Your task to perform on an android device: set default search engine in the chrome app Image 0: 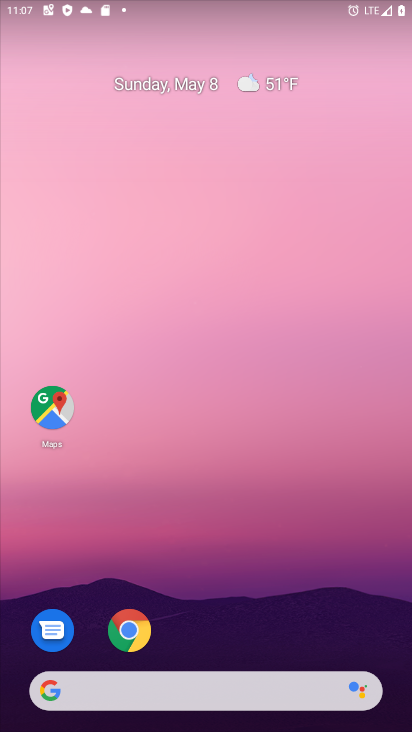
Step 0: drag from (382, 619) to (239, 69)
Your task to perform on an android device: set default search engine in the chrome app Image 1: 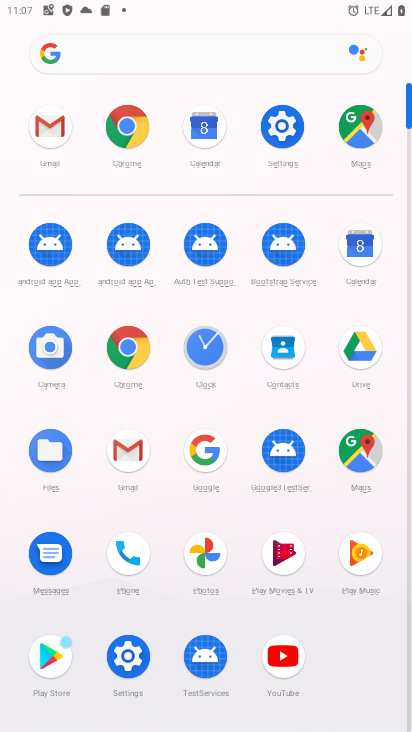
Step 1: click (134, 354)
Your task to perform on an android device: set default search engine in the chrome app Image 2: 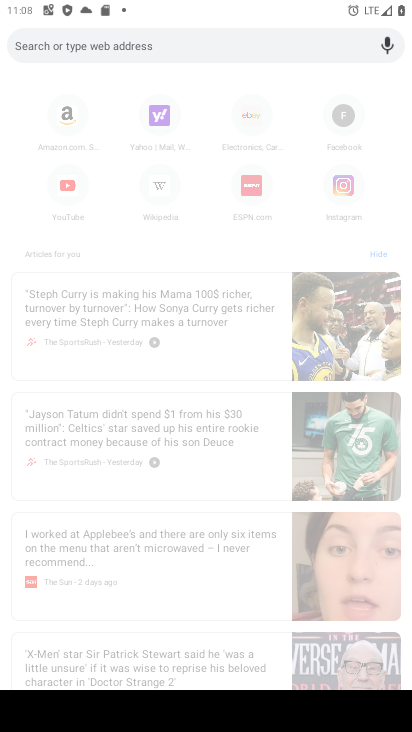
Step 2: drag from (126, 173) to (186, 593)
Your task to perform on an android device: set default search engine in the chrome app Image 3: 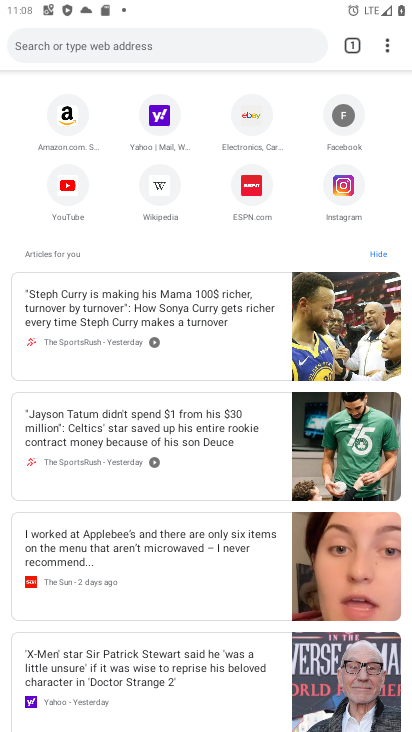
Step 3: drag from (246, 130) to (246, 367)
Your task to perform on an android device: set default search engine in the chrome app Image 4: 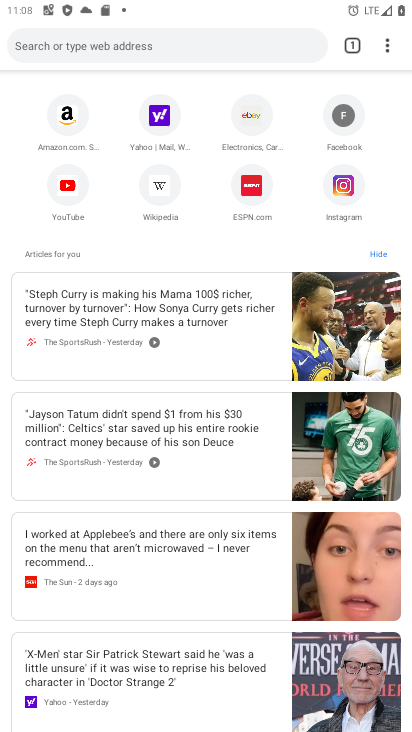
Step 4: click (384, 60)
Your task to perform on an android device: set default search engine in the chrome app Image 5: 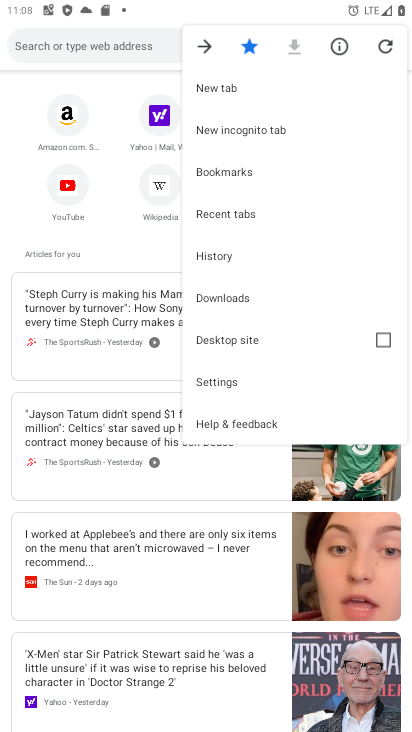
Step 5: click (288, 383)
Your task to perform on an android device: set default search engine in the chrome app Image 6: 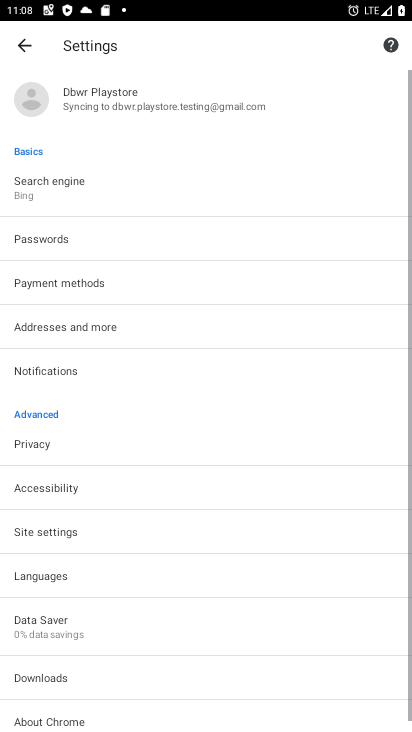
Step 6: click (48, 191)
Your task to perform on an android device: set default search engine in the chrome app Image 7: 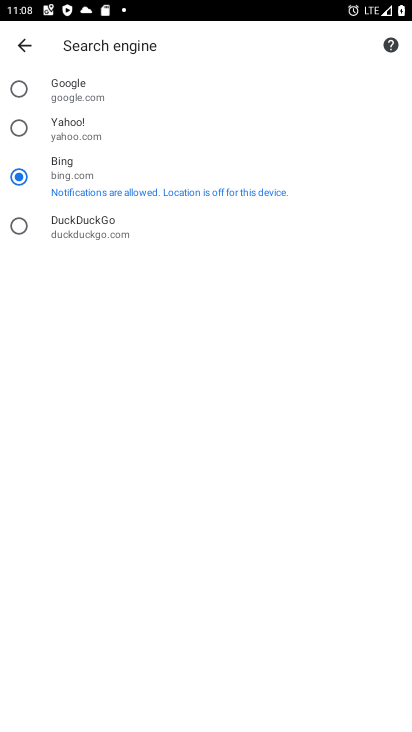
Step 7: click (104, 90)
Your task to perform on an android device: set default search engine in the chrome app Image 8: 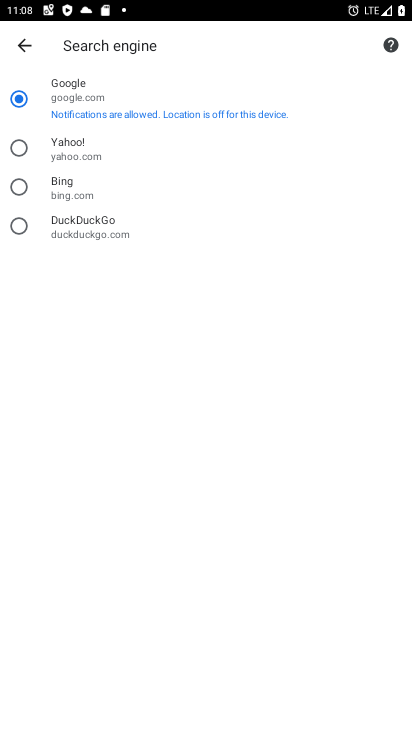
Step 8: task complete